Your task to perform on an android device: Search for sushi restaurants on Maps Image 0: 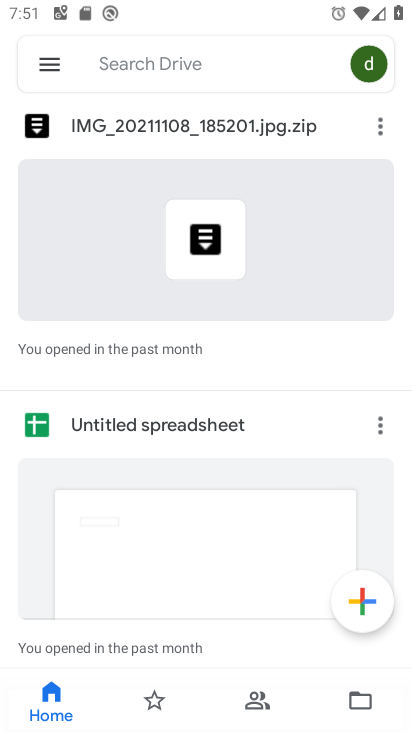
Step 0: press home button
Your task to perform on an android device: Search for sushi restaurants on Maps Image 1: 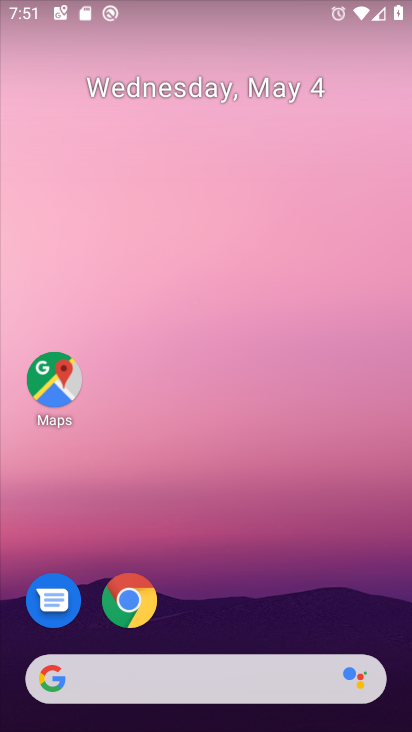
Step 1: click (44, 365)
Your task to perform on an android device: Search for sushi restaurants on Maps Image 2: 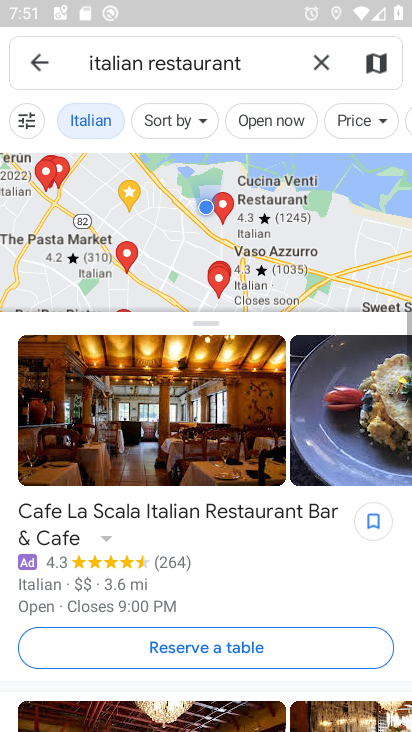
Step 2: click (319, 60)
Your task to perform on an android device: Search for sushi restaurants on Maps Image 3: 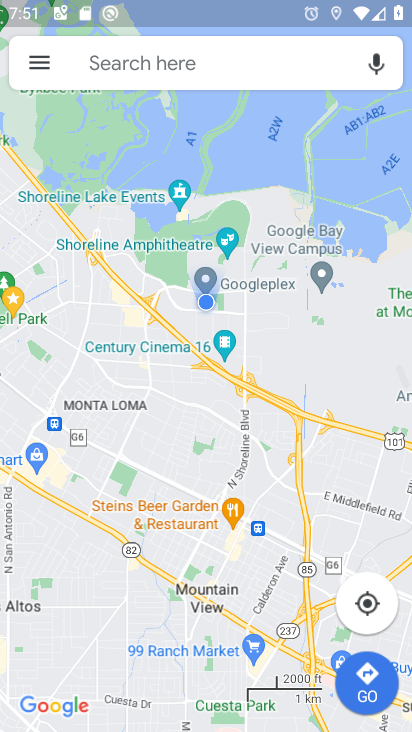
Step 3: click (183, 68)
Your task to perform on an android device: Search for sushi restaurants on Maps Image 4: 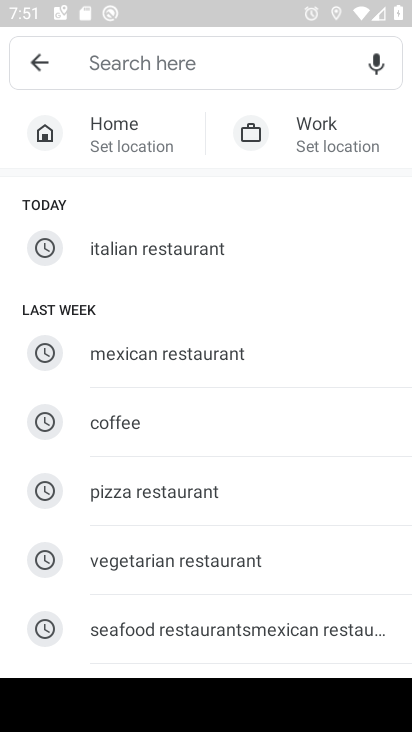
Step 4: type "sushi reasturent"
Your task to perform on an android device: Search for sushi restaurants on Maps Image 5: 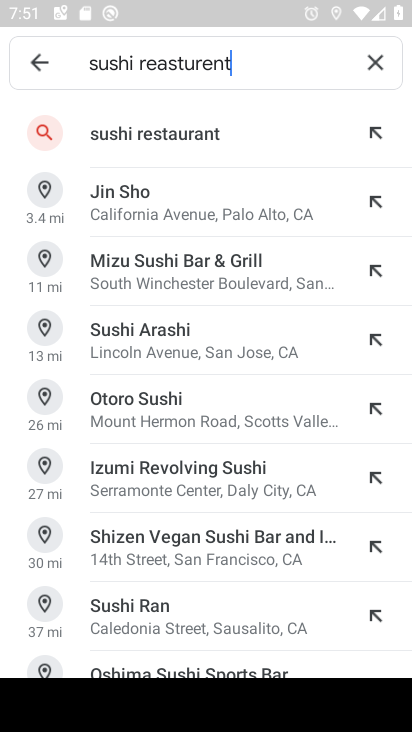
Step 5: click (222, 135)
Your task to perform on an android device: Search for sushi restaurants on Maps Image 6: 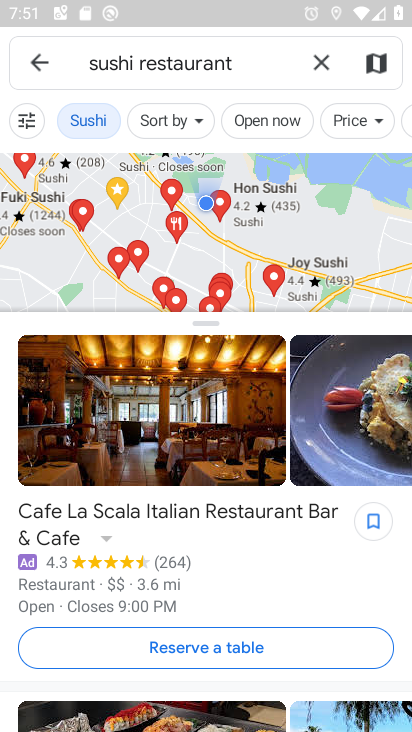
Step 6: task complete